Your task to perform on an android device: When is my next appointment? Image 0: 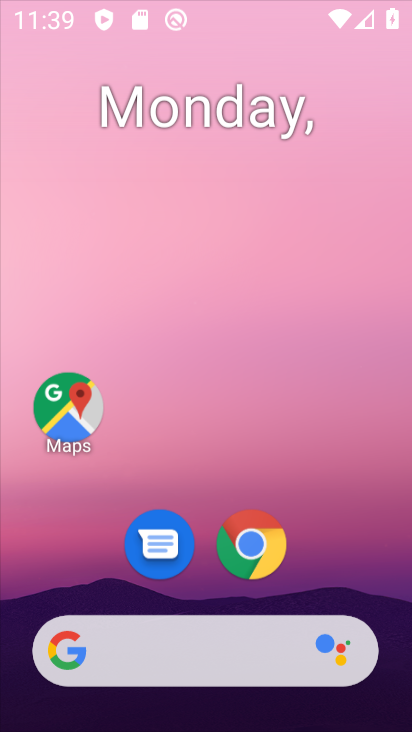
Step 0: drag from (375, 84) to (287, 22)
Your task to perform on an android device: When is my next appointment? Image 1: 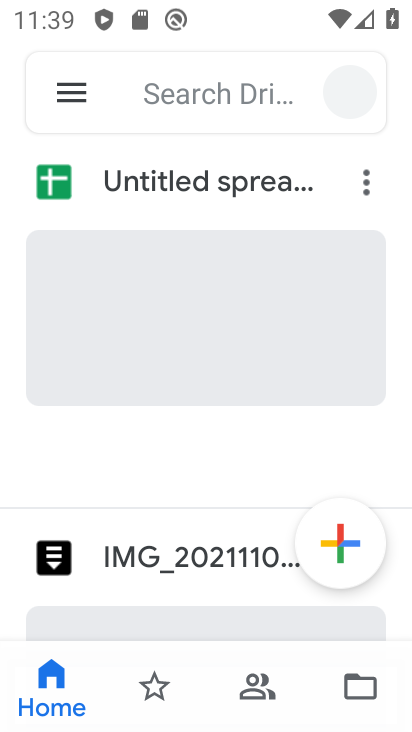
Step 1: press home button
Your task to perform on an android device: When is my next appointment? Image 2: 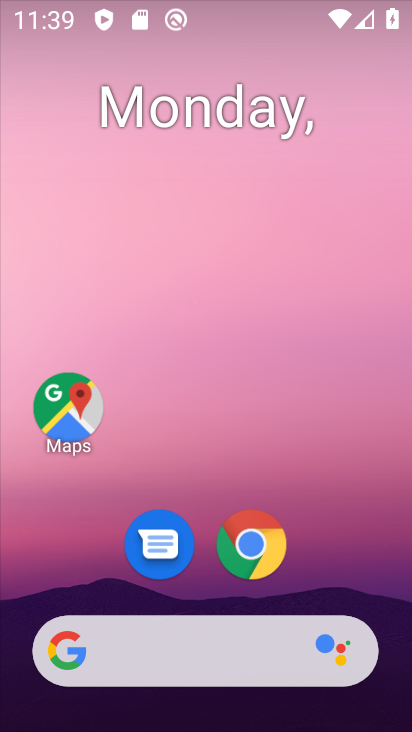
Step 2: drag from (321, 554) to (334, 206)
Your task to perform on an android device: When is my next appointment? Image 3: 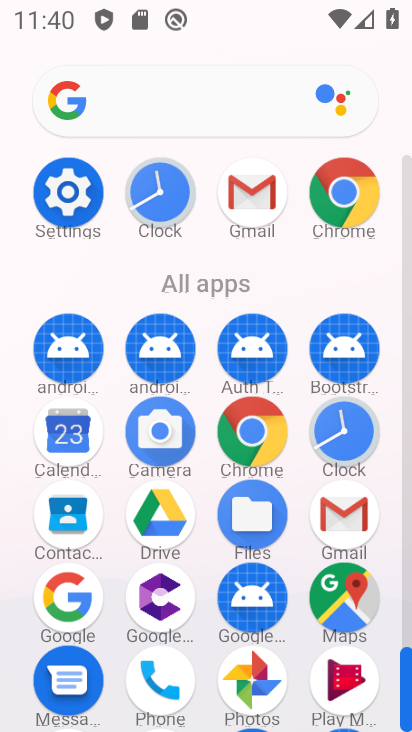
Step 3: click (53, 443)
Your task to perform on an android device: When is my next appointment? Image 4: 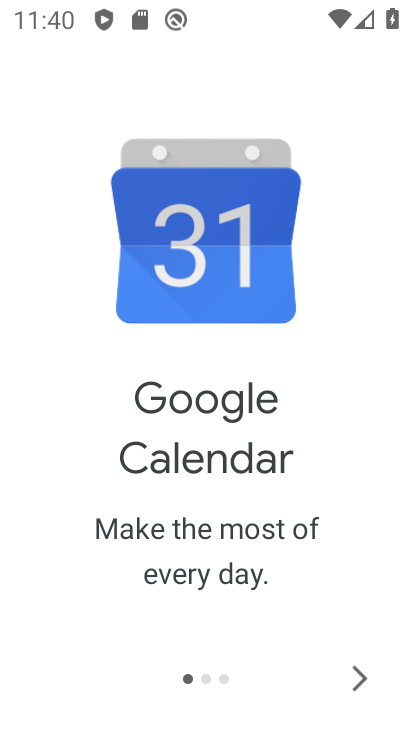
Step 4: click (367, 665)
Your task to perform on an android device: When is my next appointment? Image 5: 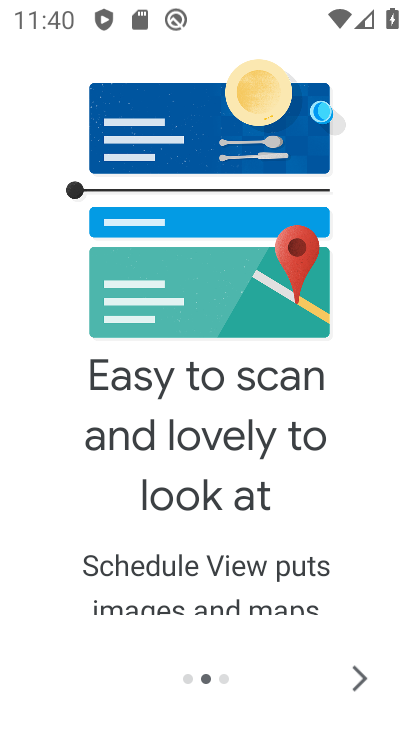
Step 5: click (367, 665)
Your task to perform on an android device: When is my next appointment? Image 6: 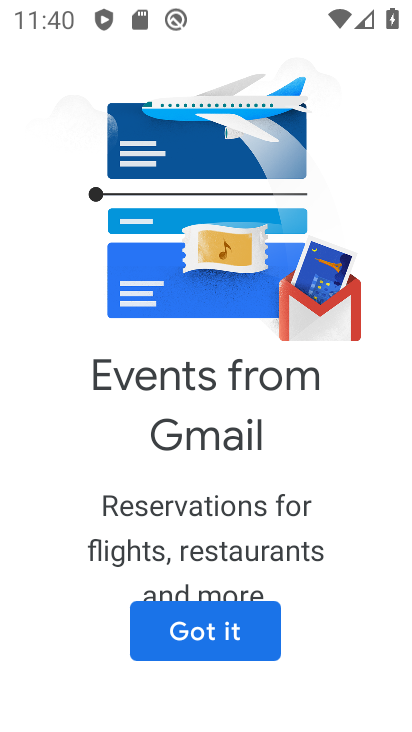
Step 6: click (187, 629)
Your task to perform on an android device: When is my next appointment? Image 7: 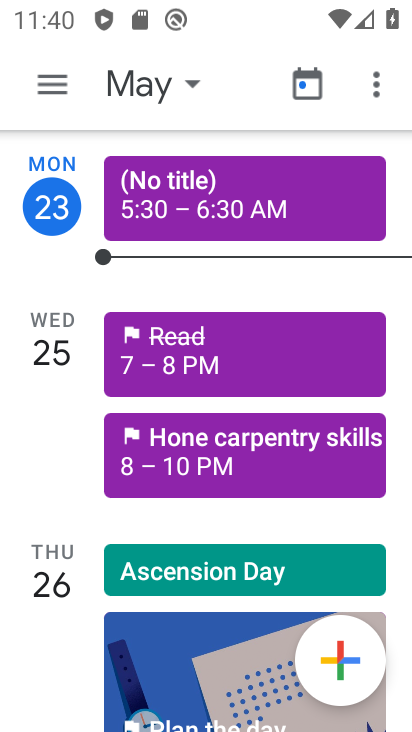
Step 7: click (48, 63)
Your task to perform on an android device: When is my next appointment? Image 8: 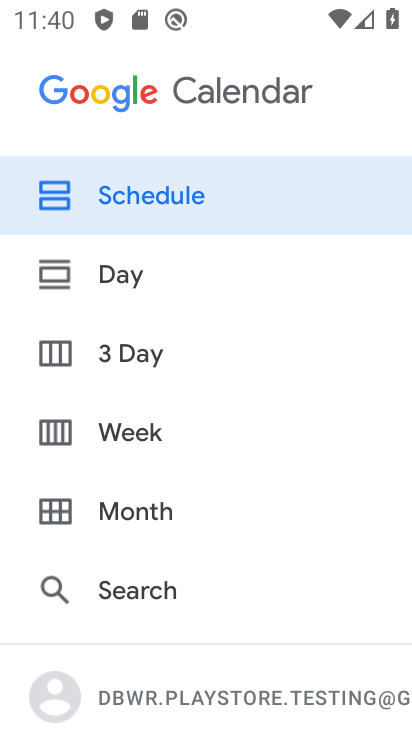
Step 8: click (90, 192)
Your task to perform on an android device: When is my next appointment? Image 9: 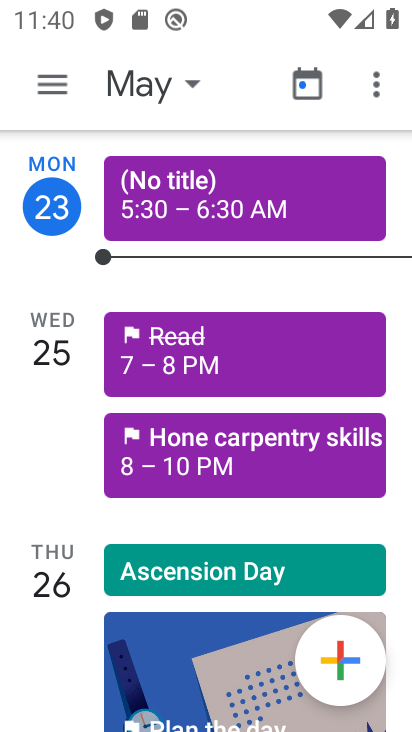
Step 9: task complete